Your task to perform on an android device: change keyboard looks Image 0: 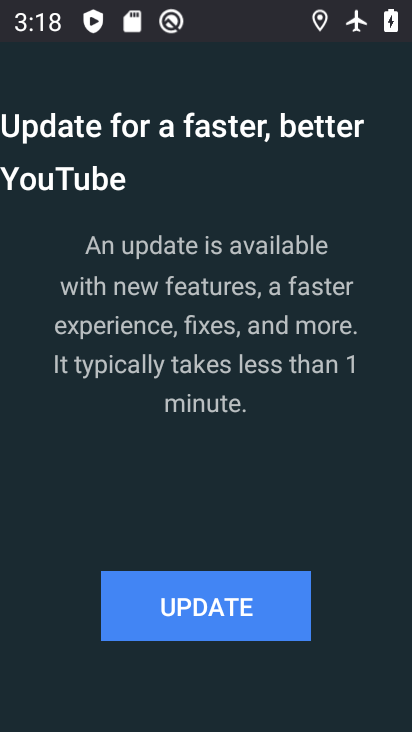
Step 0: press home button
Your task to perform on an android device: change keyboard looks Image 1: 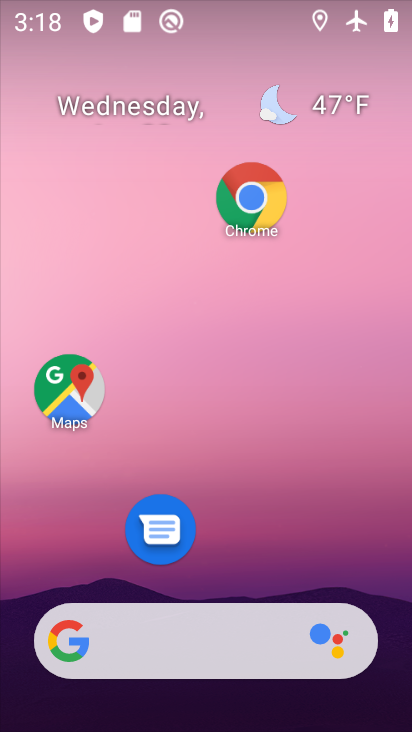
Step 1: drag from (256, 509) to (211, 37)
Your task to perform on an android device: change keyboard looks Image 2: 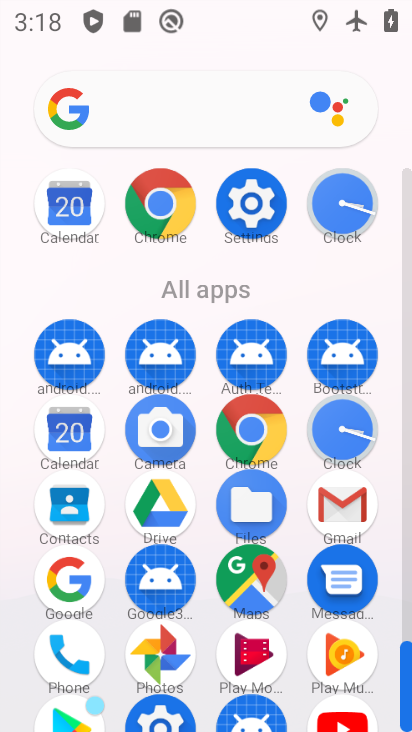
Step 2: click (252, 203)
Your task to perform on an android device: change keyboard looks Image 3: 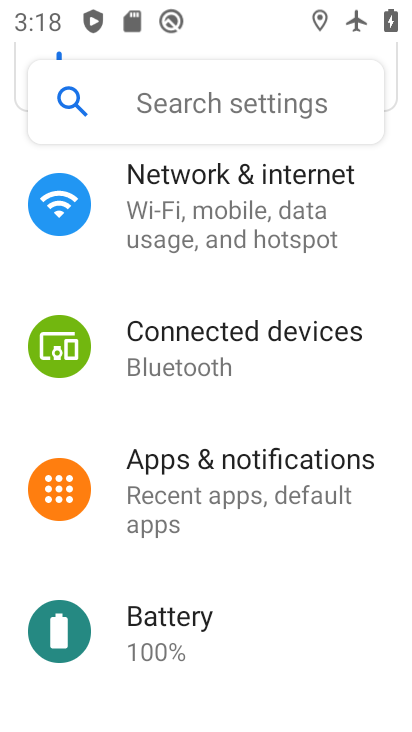
Step 3: drag from (245, 551) to (214, 214)
Your task to perform on an android device: change keyboard looks Image 4: 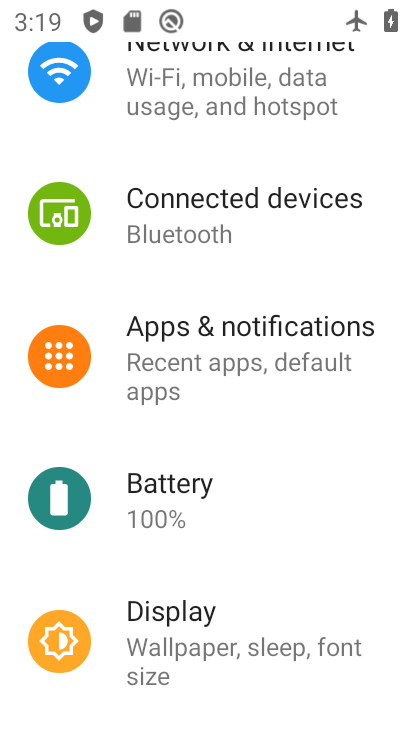
Step 4: drag from (285, 543) to (285, 73)
Your task to perform on an android device: change keyboard looks Image 5: 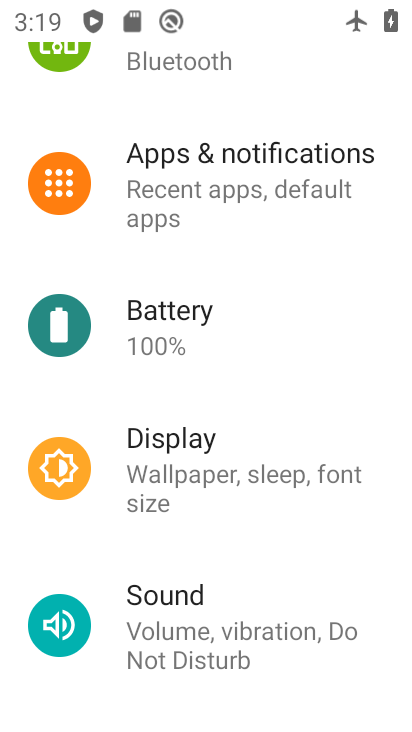
Step 5: drag from (298, 600) to (322, 135)
Your task to perform on an android device: change keyboard looks Image 6: 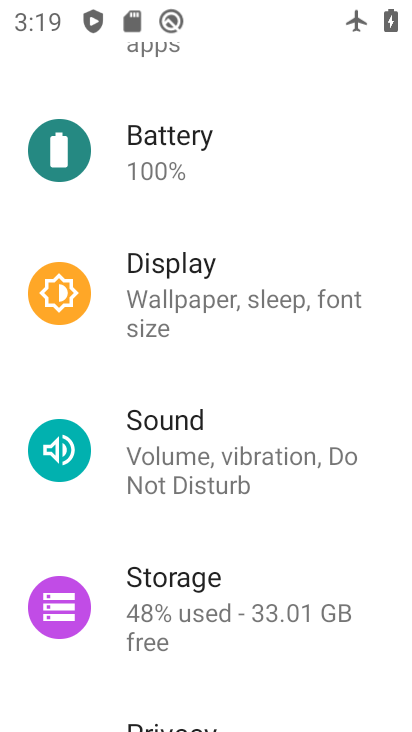
Step 6: drag from (267, 533) to (266, 238)
Your task to perform on an android device: change keyboard looks Image 7: 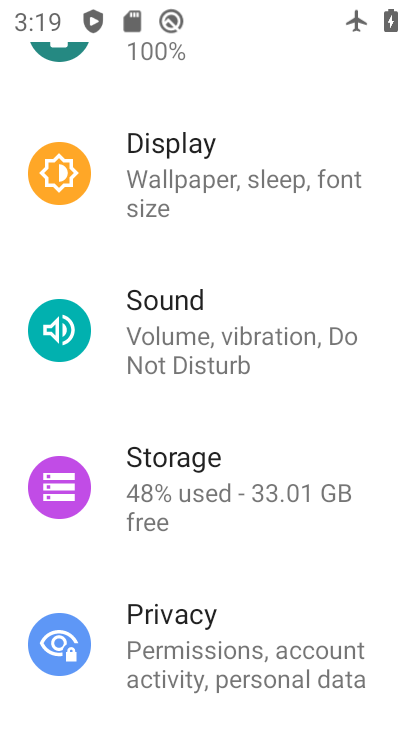
Step 7: drag from (270, 605) to (262, 162)
Your task to perform on an android device: change keyboard looks Image 8: 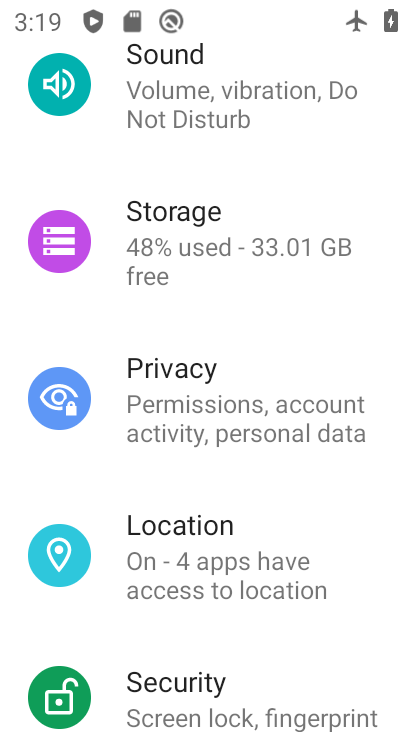
Step 8: drag from (270, 566) to (272, 192)
Your task to perform on an android device: change keyboard looks Image 9: 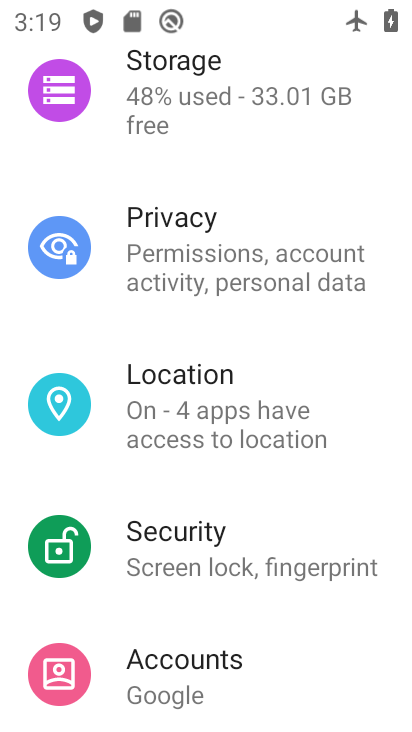
Step 9: drag from (242, 630) to (266, 218)
Your task to perform on an android device: change keyboard looks Image 10: 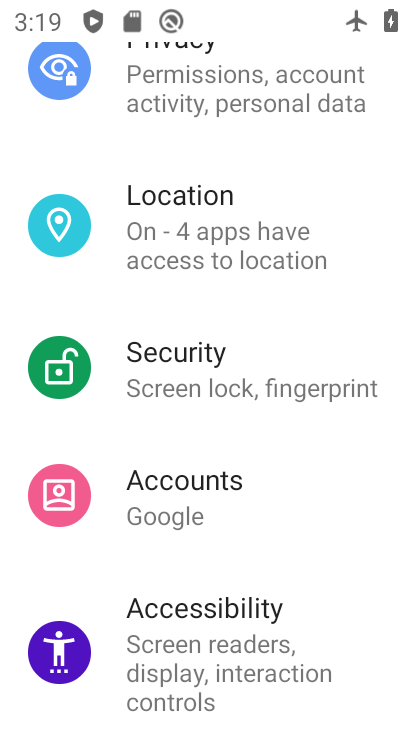
Step 10: drag from (254, 641) to (269, 303)
Your task to perform on an android device: change keyboard looks Image 11: 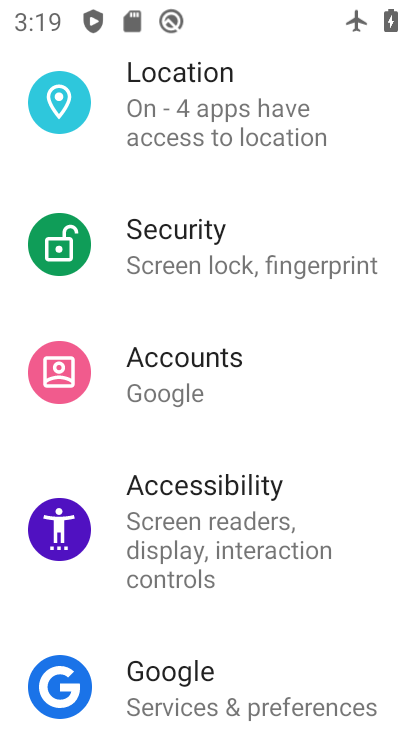
Step 11: drag from (241, 629) to (261, 273)
Your task to perform on an android device: change keyboard looks Image 12: 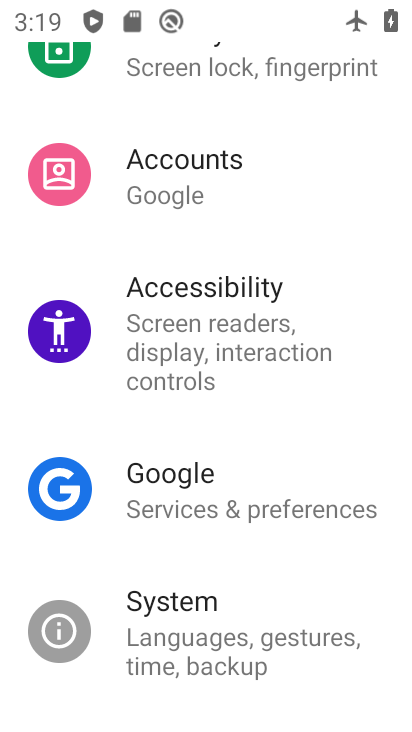
Step 12: click (195, 628)
Your task to perform on an android device: change keyboard looks Image 13: 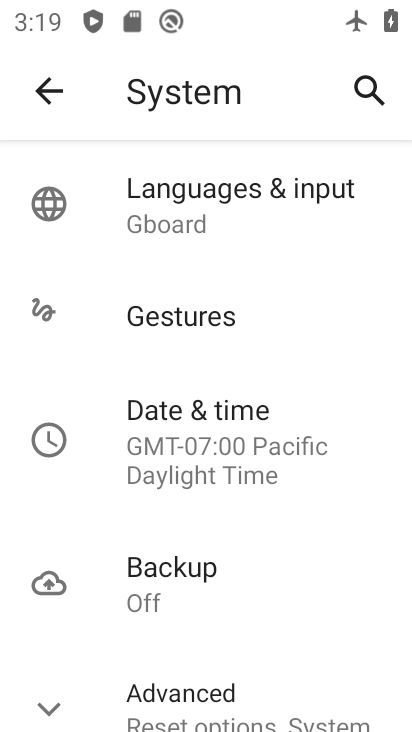
Step 13: click (205, 203)
Your task to perform on an android device: change keyboard looks Image 14: 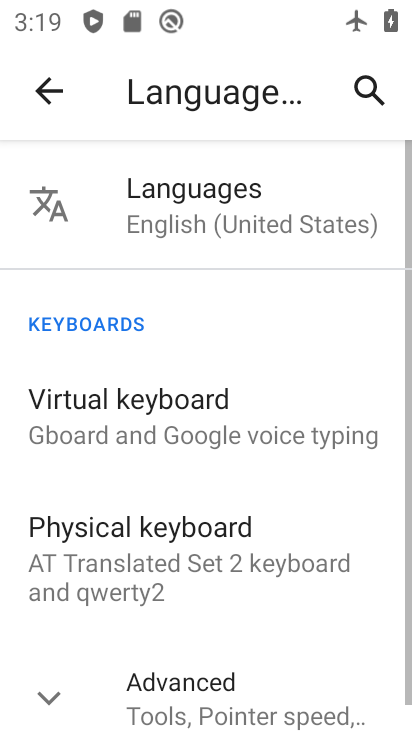
Step 14: click (153, 412)
Your task to perform on an android device: change keyboard looks Image 15: 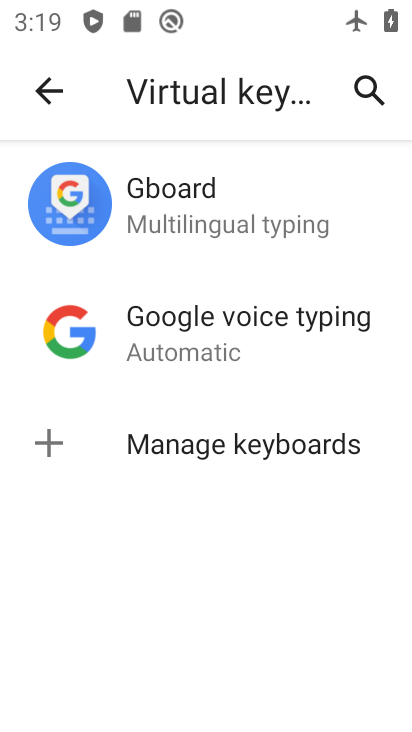
Step 15: click (179, 214)
Your task to perform on an android device: change keyboard looks Image 16: 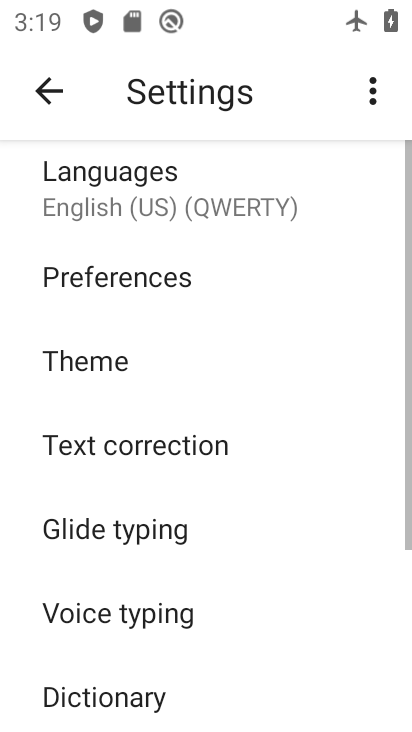
Step 16: click (136, 356)
Your task to perform on an android device: change keyboard looks Image 17: 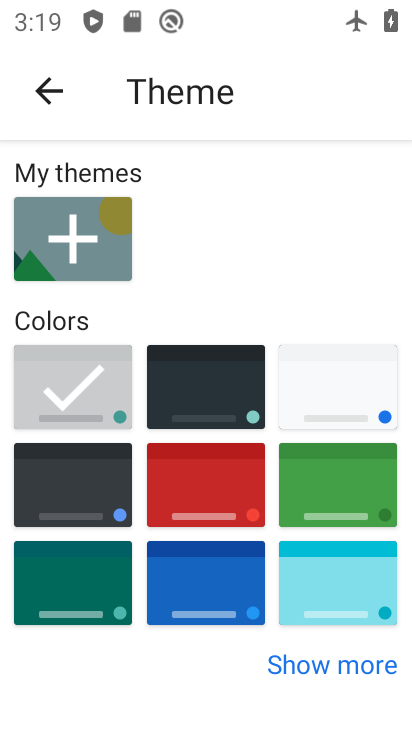
Step 17: click (193, 380)
Your task to perform on an android device: change keyboard looks Image 18: 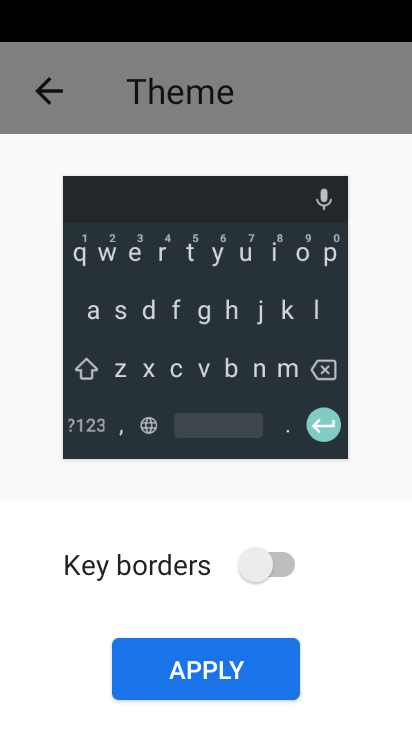
Step 18: click (210, 665)
Your task to perform on an android device: change keyboard looks Image 19: 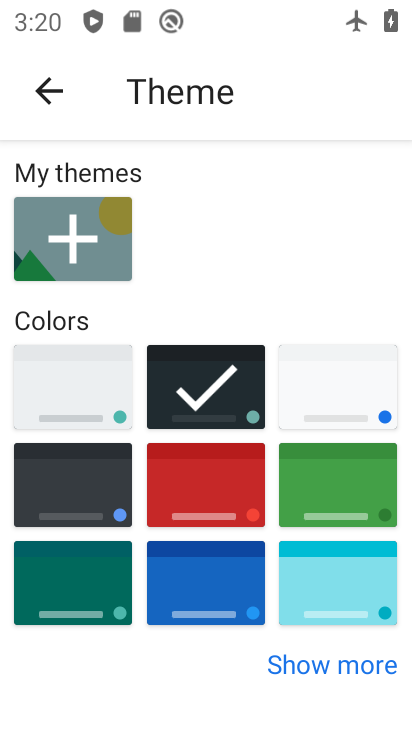
Step 19: task complete